Your task to perform on an android device: turn on bluetooth scan Image 0: 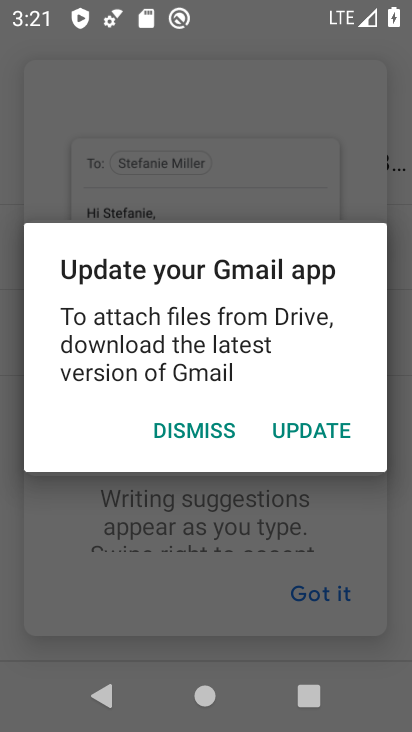
Step 0: press home button
Your task to perform on an android device: turn on bluetooth scan Image 1: 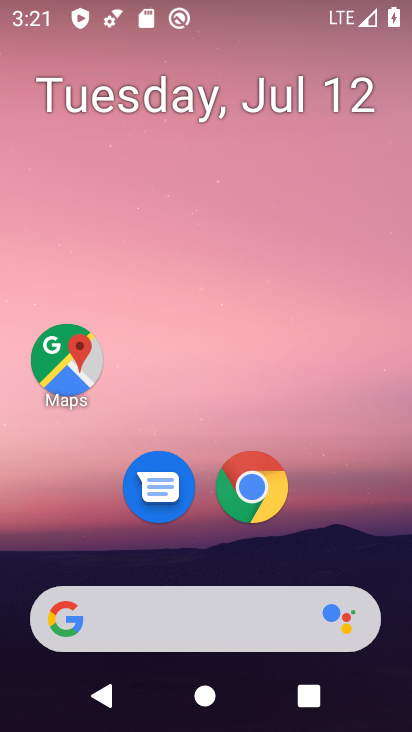
Step 1: drag from (235, 562) to (252, 304)
Your task to perform on an android device: turn on bluetooth scan Image 2: 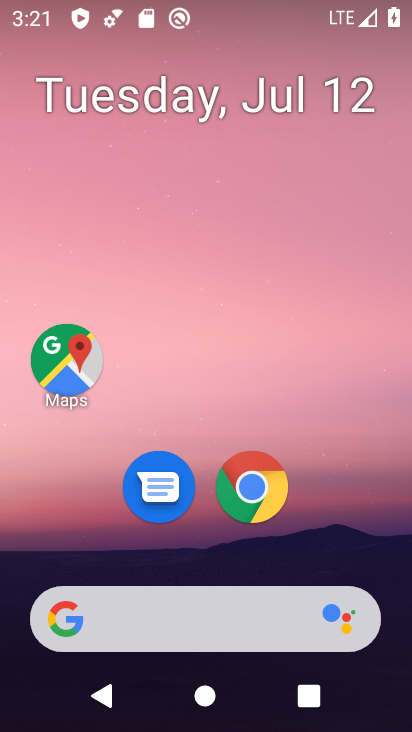
Step 2: drag from (194, 640) to (340, 140)
Your task to perform on an android device: turn on bluetooth scan Image 3: 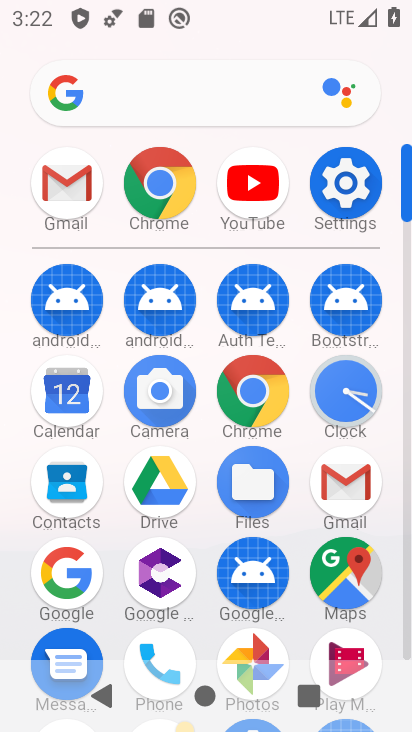
Step 3: click (351, 181)
Your task to perform on an android device: turn on bluetooth scan Image 4: 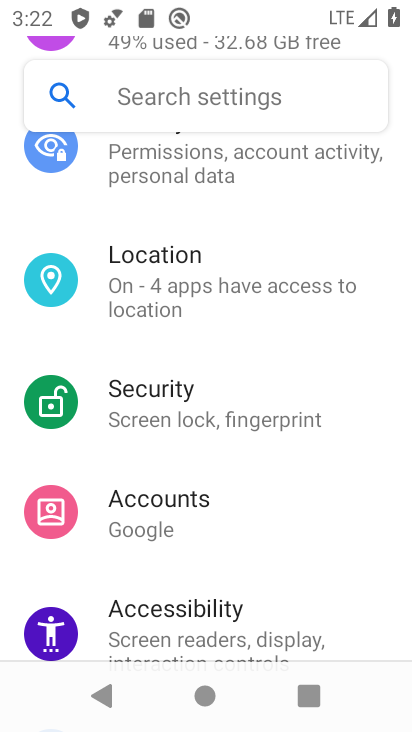
Step 4: drag from (202, 247) to (112, 557)
Your task to perform on an android device: turn on bluetooth scan Image 5: 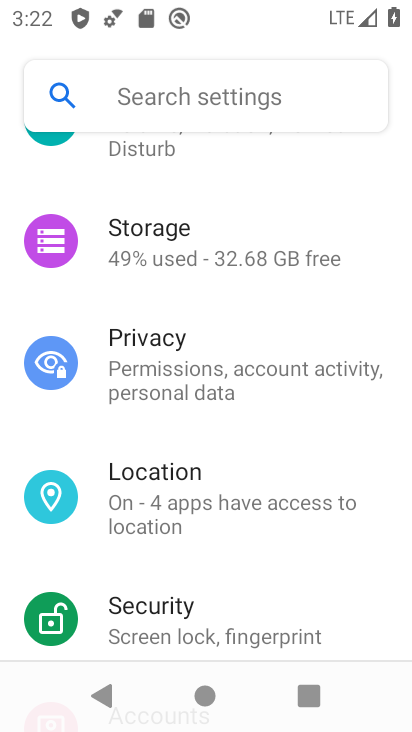
Step 5: drag from (142, 368) to (111, 609)
Your task to perform on an android device: turn on bluetooth scan Image 6: 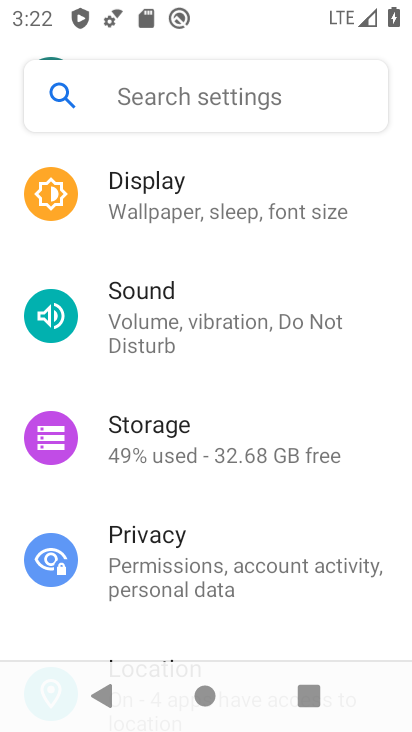
Step 6: drag from (220, 331) to (178, 549)
Your task to perform on an android device: turn on bluetooth scan Image 7: 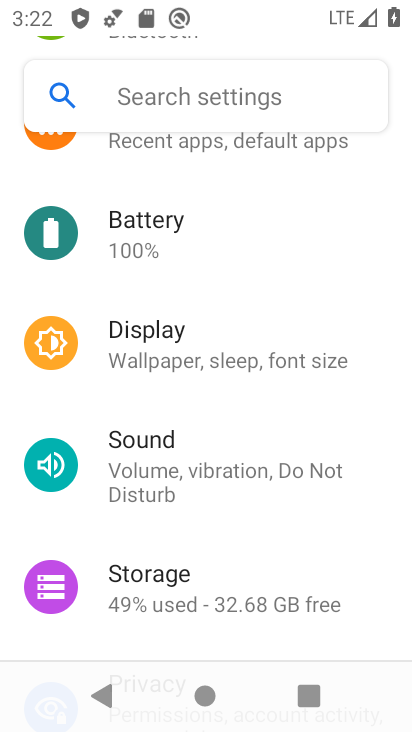
Step 7: drag from (240, 196) to (194, 633)
Your task to perform on an android device: turn on bluetooth scan Image 8: 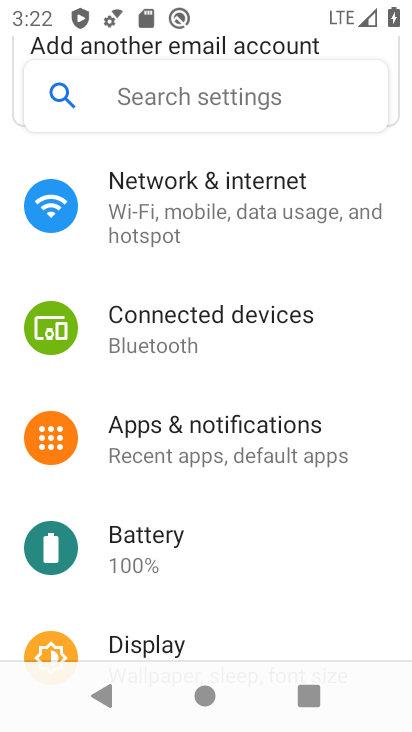
Step 8: drag from (176, 300) to (175, 622)
Your task to perform on an android device: turn on bluetooth scan Image 9: 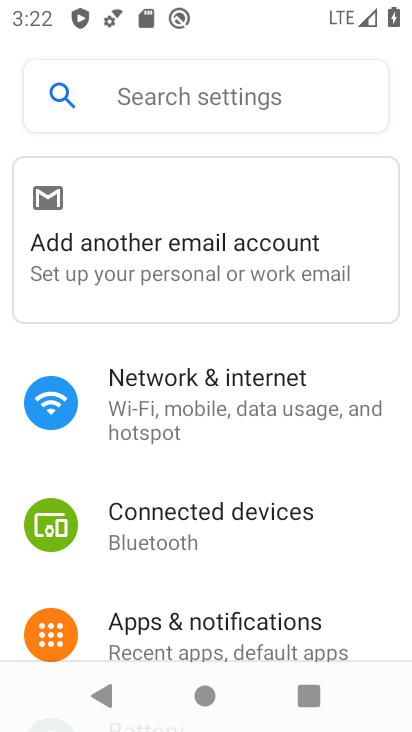
Step 9: click (248, 519)
Your task to perform on an android device: turn on bluetooth scan Image 10: 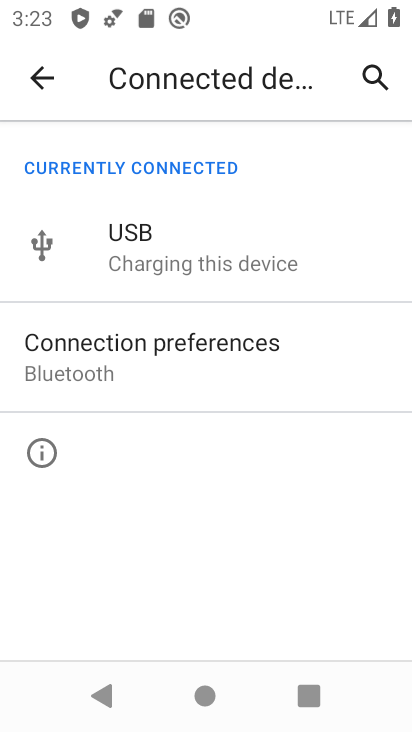
Step 10: click (208, 386)
Your task to perform on an android device: turn on bluetooth scan Image 11: 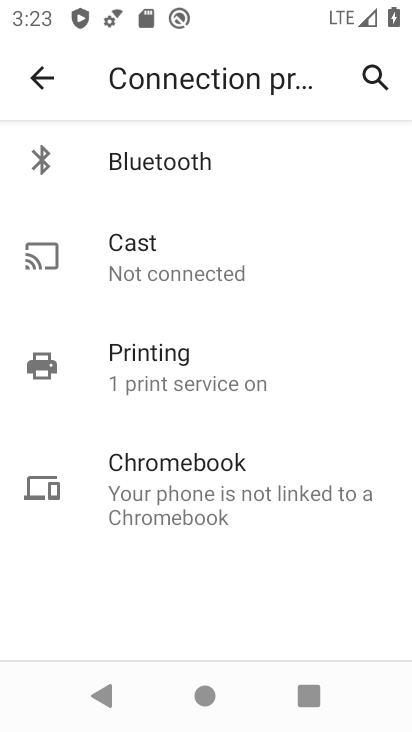
Step 11: click (164, 143)
Your task to perform on an android device: turn on bluetooth scan Image 12: 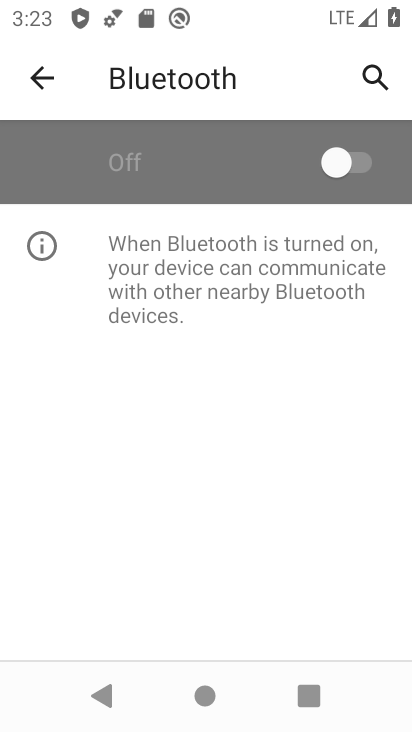
Step 12: click (347, 113)
Your task to perform on an android device: turn on bluetooth scan Image 13: 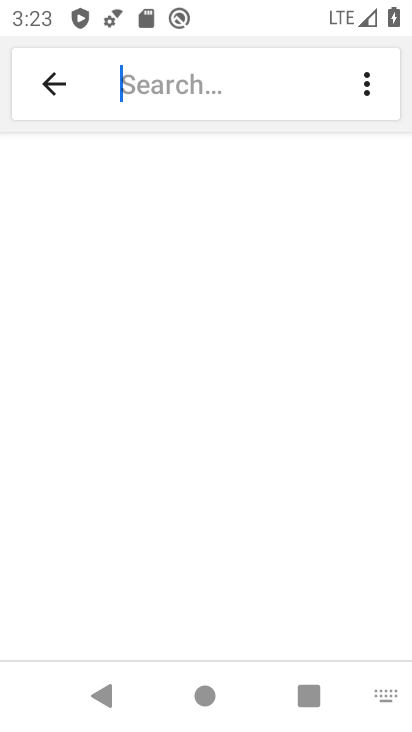
Step 13: task complete